Your task to perform on an android device: Do I have any events this weekend? Image 0: 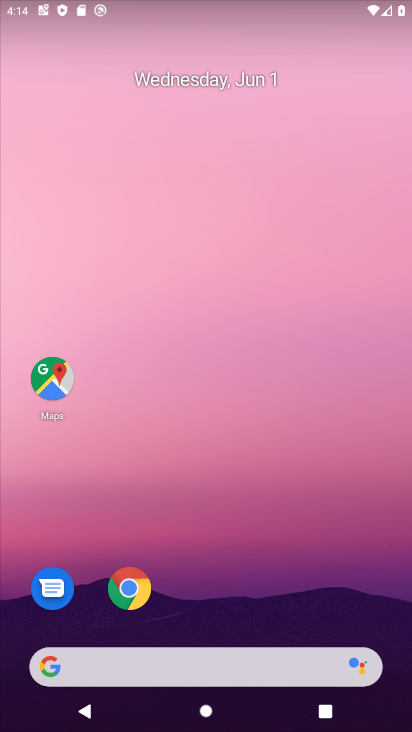
Step 0: drag from (245, 591) to (270, 73)
Your task to perform on an android device: Do I have any events this weekend? Image 1: 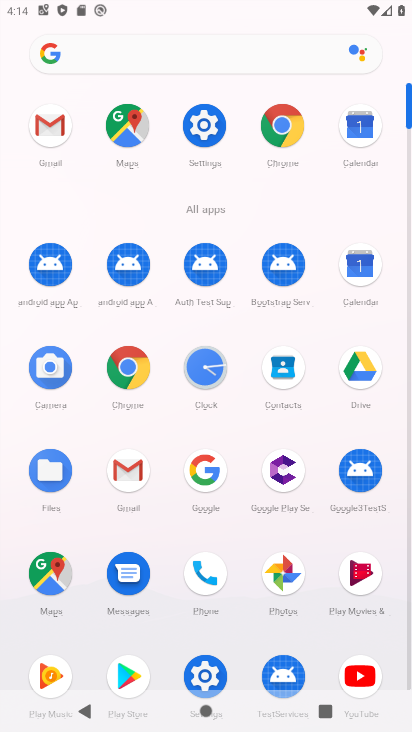
Step 1: click (368, 268)
Your task to perform on an android device: Do I have any events this weekend? Image 2: 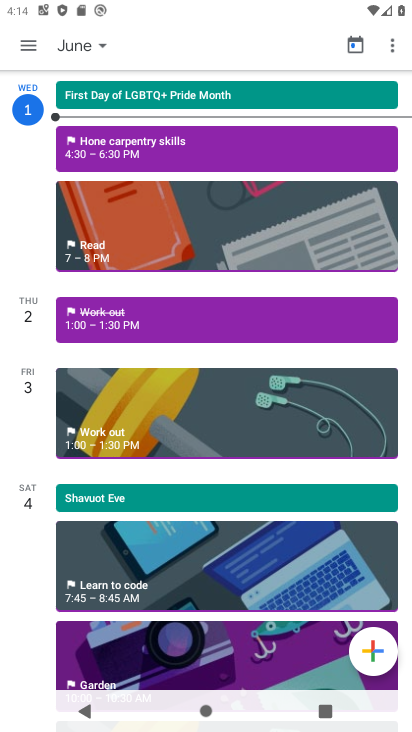
Step 2: click (27, 59)
Your task to perform on an android device: Do I have any events this weekend? Image 3: 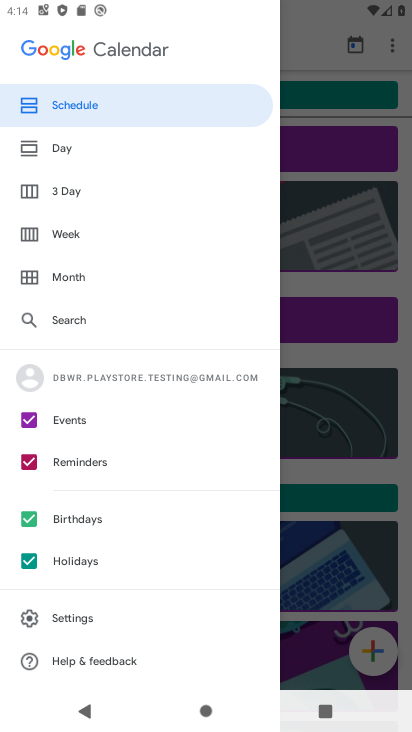
Step 3: click (76, 191)
Your task to perform on an android device: Do I have any events this weekend? Image 4: 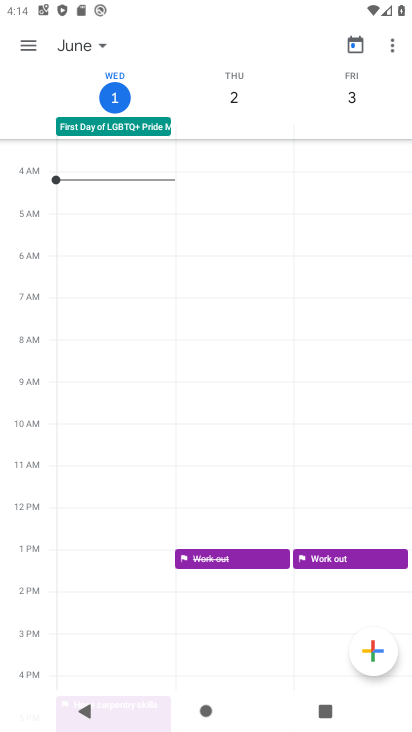
Step 4: task complete